Your task to perform on an android device: Go to display settings Image 0: 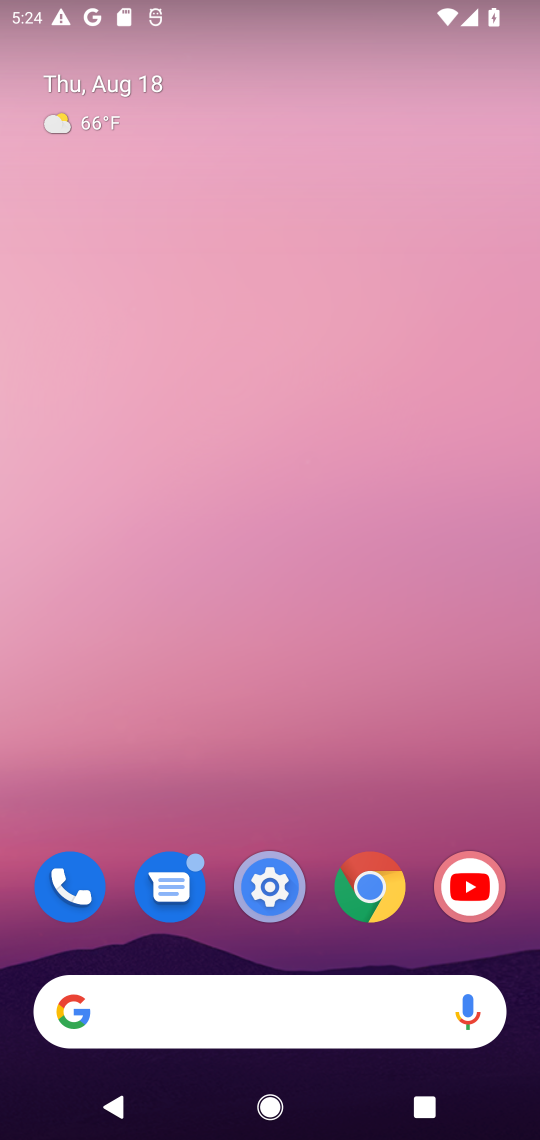
Step 0: click (290, 891)
Your task to perform on an android device: Go to display settings Image 1: 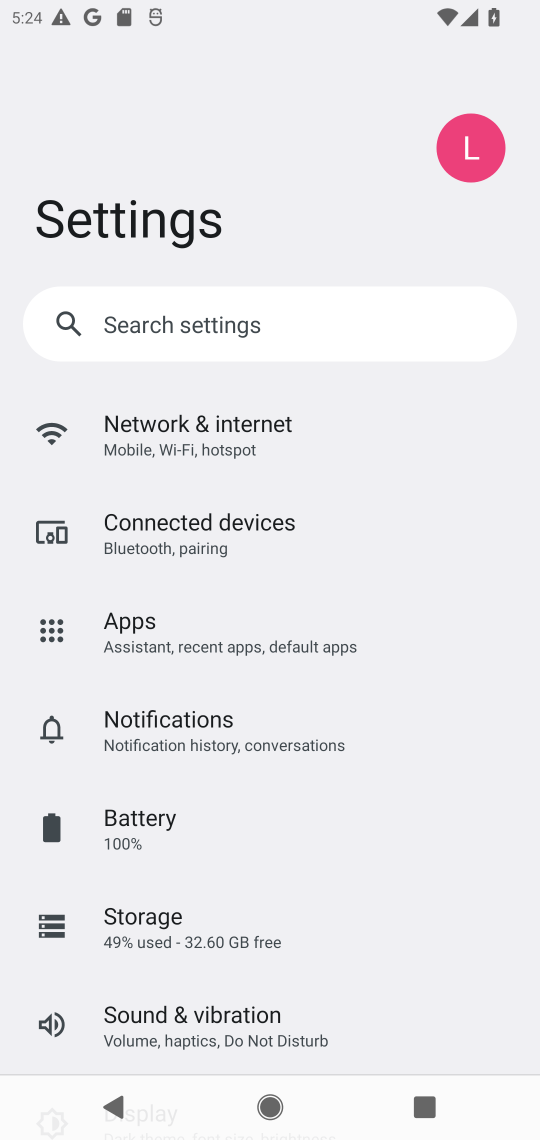
Step 1: drag from (246, 814) to (276, 403)
Your task to perform on an android device: Go to display settings Image 2: 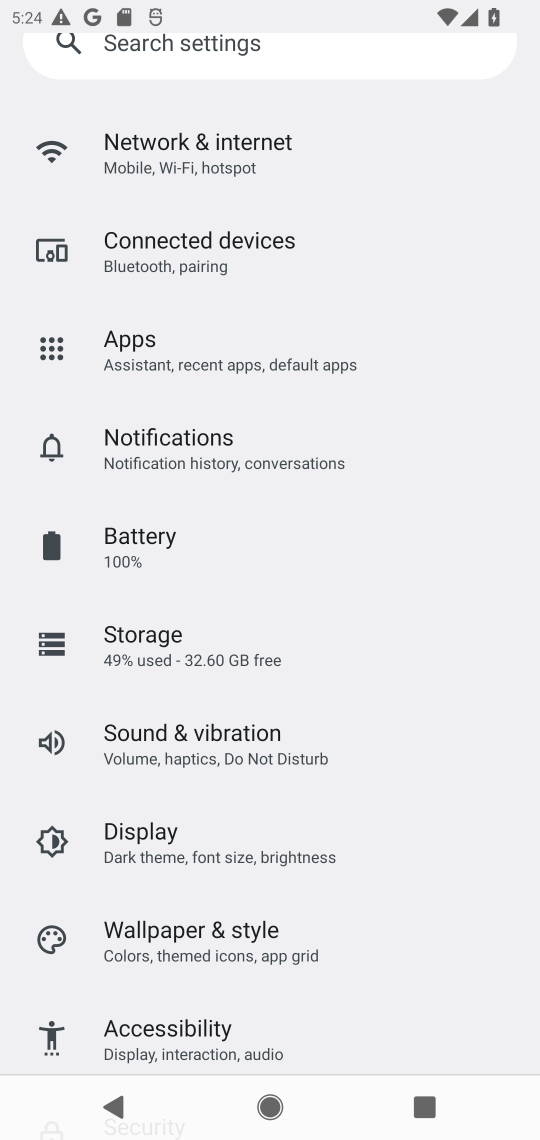
Step 2: click (165, 844)
Your task to perform on an android device: Go to display settings Image 3: 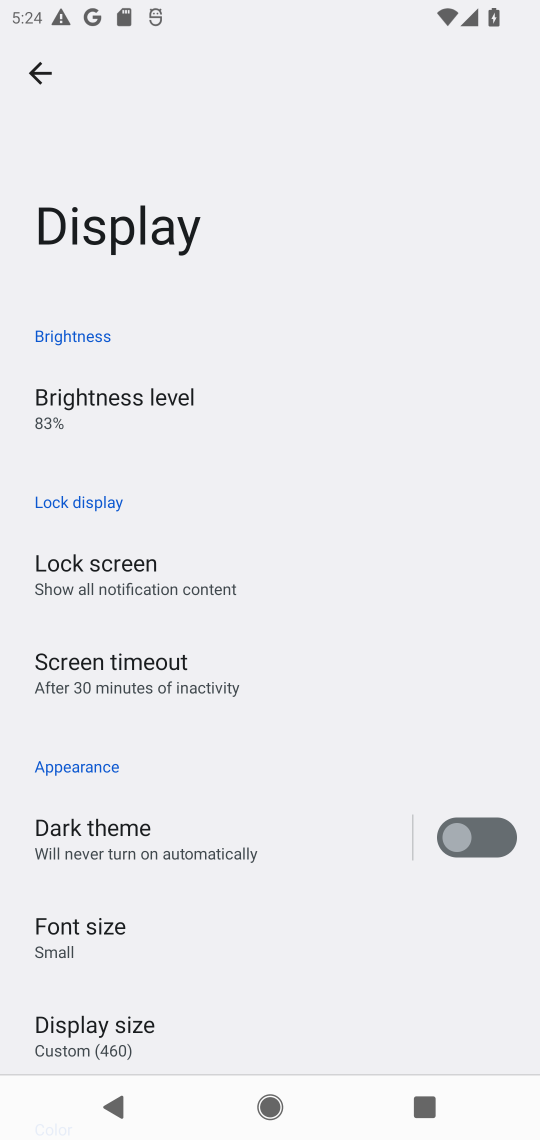
Step 3: task complete